Your task to perform on an android device: visit the assistant section in the google photos Image 0: 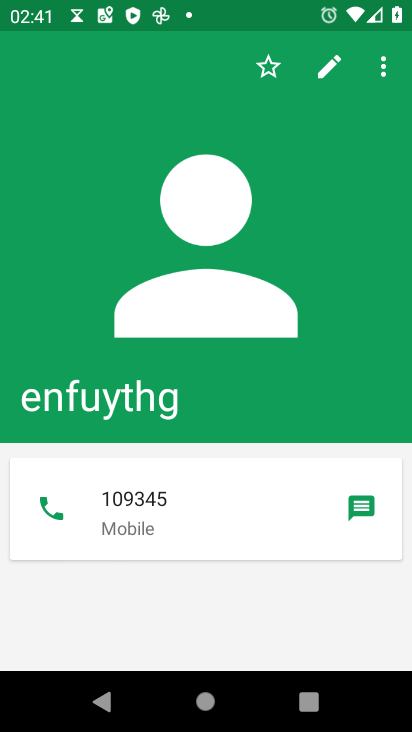
Step 0: press home button
Your task to perform on an android device: visit the assistant section in the google photos Image 1: 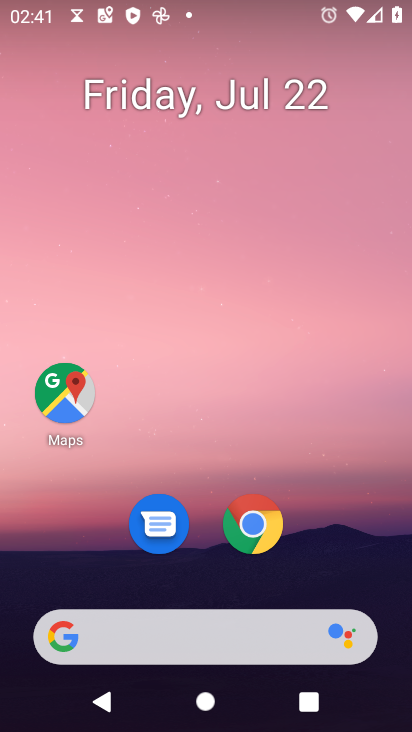
Step 1: drag from (214, 623) to (277, 18)
Your task to perform on an android device: visit the assistant section in the google photos Image 2: 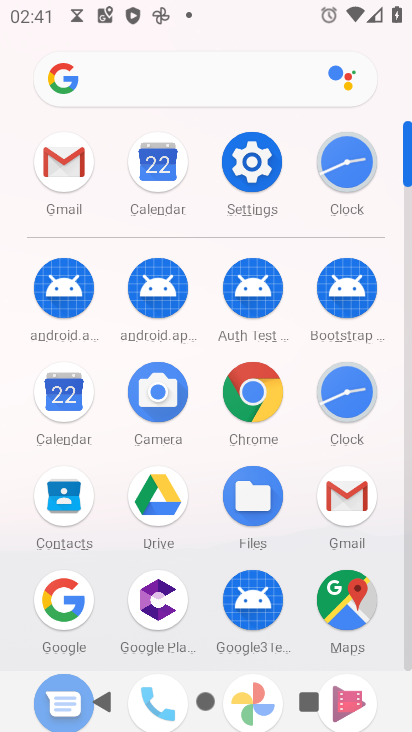
Step 2: drag from (204, 568) to (230, 108)
Your task to perform on an android device: visit the assistant section in the google photos Image 3: 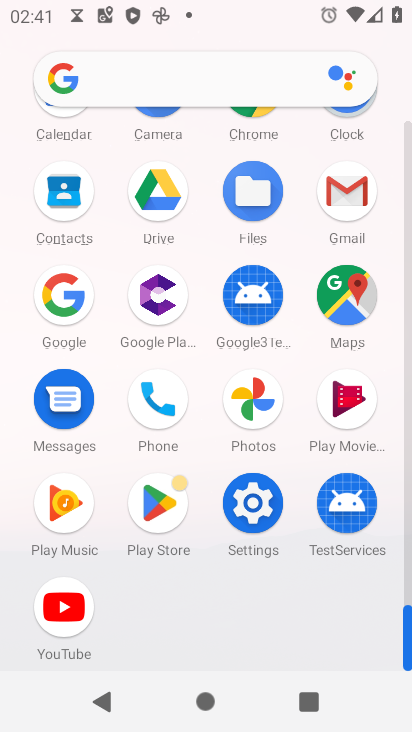
Step 3: click (245, 404)
Your task to perform on an android device: visit the assistant section in the google photos Image 4: 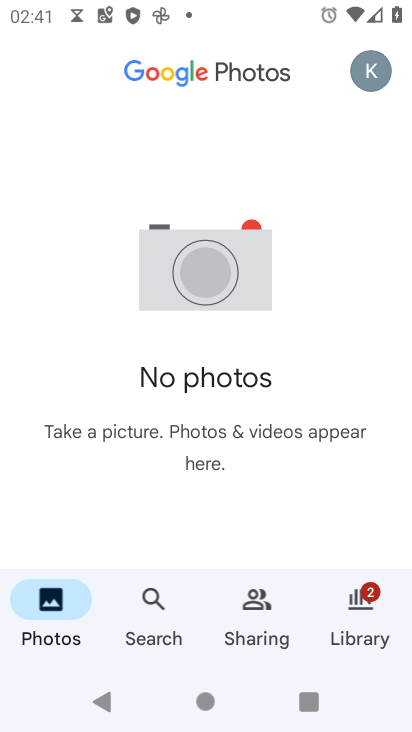
Step 4: click (355, 624)
Your task to perform on an android device: visit the assistant section in the google photos Image 5: 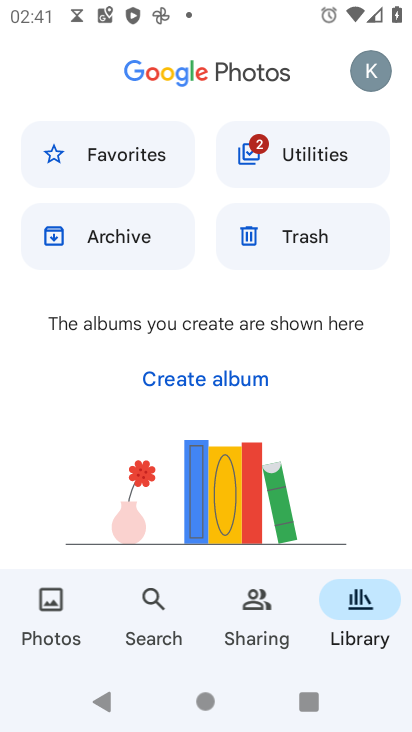
Step 5: task complete